Your task to perform on an android device: turn pop-ups off in chrome Image 0: 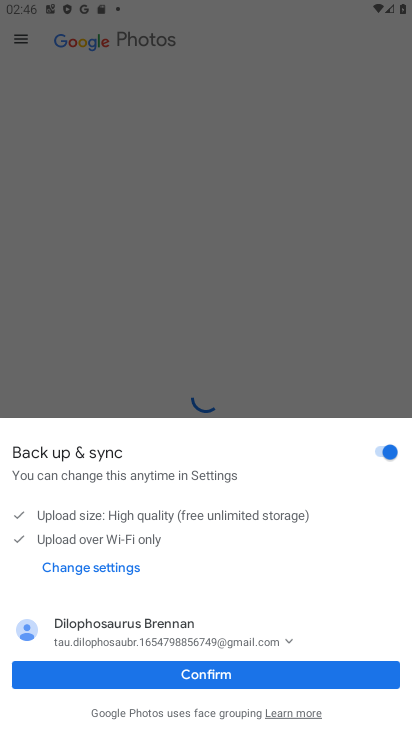
Step 0: press home button
Your task to perform on an android device: turn pop-ups off in chrome Image 1: 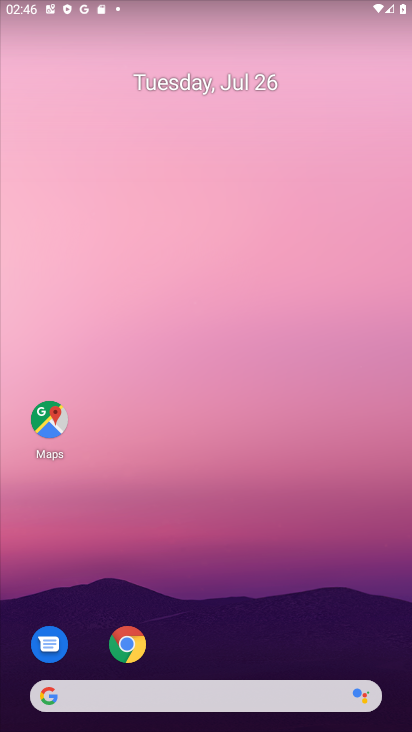
Step 1: click (115, 630)
Your task to perform on an android device: turn pop-ups off in chrome Image 2: 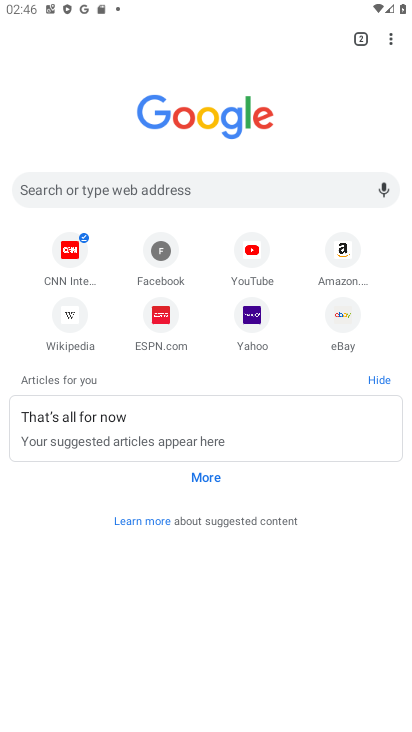
Step 2: click (388, 42)
Your task to perform on an android device: turn pop-ups off in chrome Image 3: 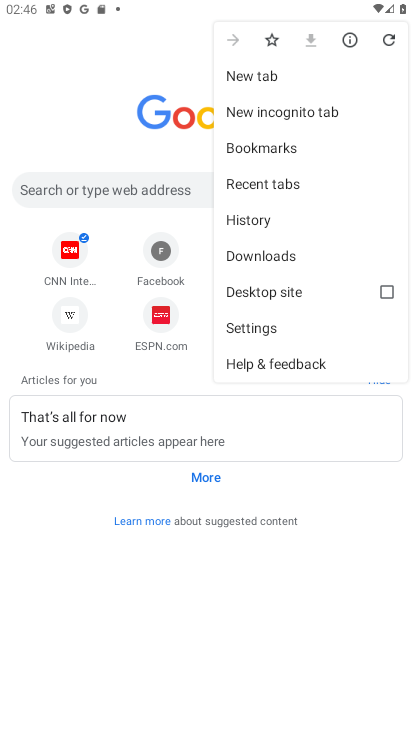
Step 3: click (253, 324)
Your task to perform on an android device: turn pop-ups off in chrome Image 4: 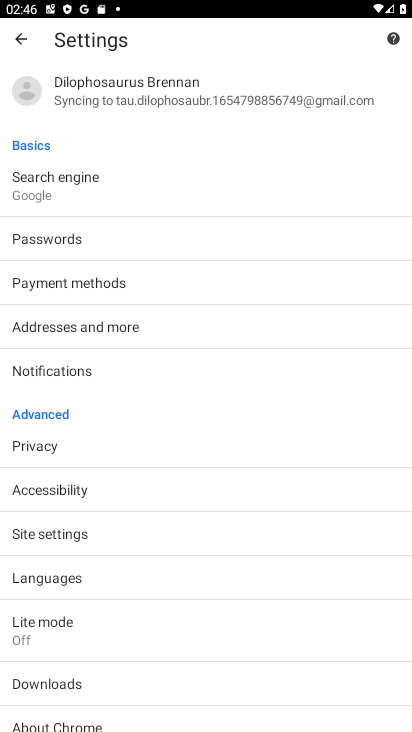
Step 4: click (49, 540)
Your task to perform on an android device: turn pop-ups off in chrome Image 5: 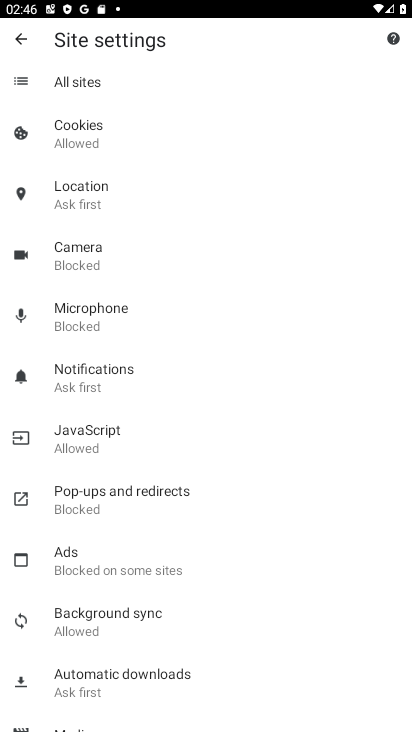
Step 5: click (121, 504)
Your task to perform on an android device: turn pop-ups off in chrome Image 6: 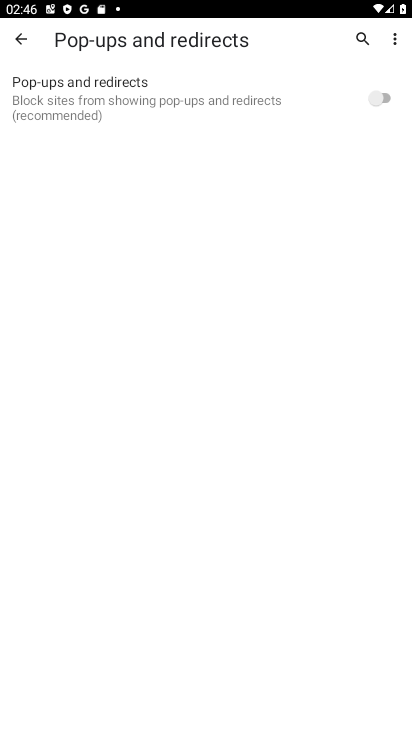
Step 6: task complete